Your task to perform on an android device: Go to accessibility settings Image 0: 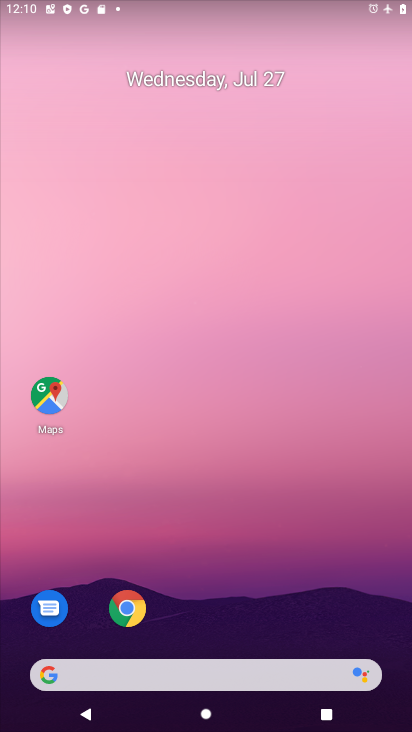
Step 0: drag from (186, 669) to (235, 104)
Your task to perform on an android device: Go to accessibility settings Image 1: 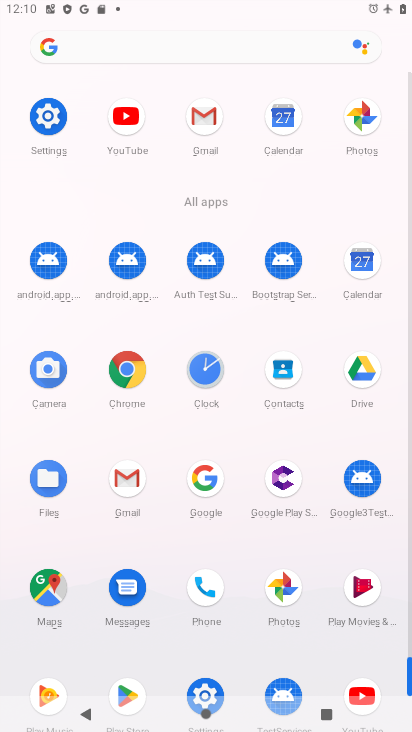
Step 1: click (49, 116)
Your task to perform on an android device: Go to accessibility settings Image 2: 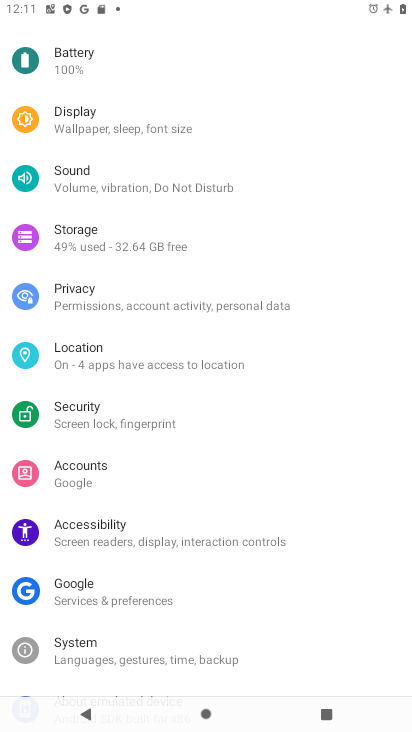
Step 2: click (131, 551)
Your task to perform on an android device: Go to accessibility settings Image 3: 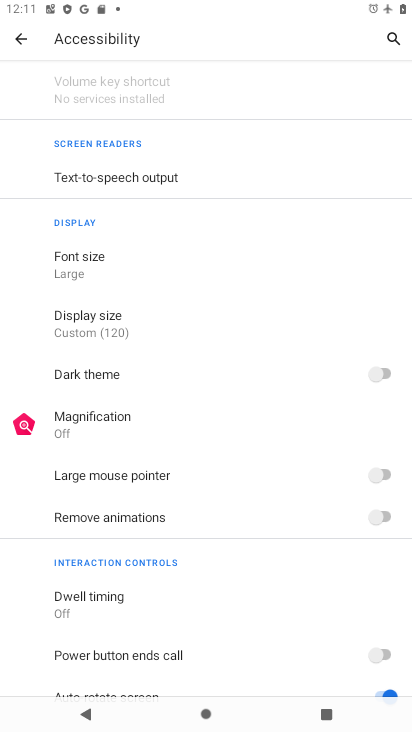
Step 3: task complete